Your task to perform on an android device: open app "Mercado Libre" (install if not already installed), go to login, and select forgot password Image 0: 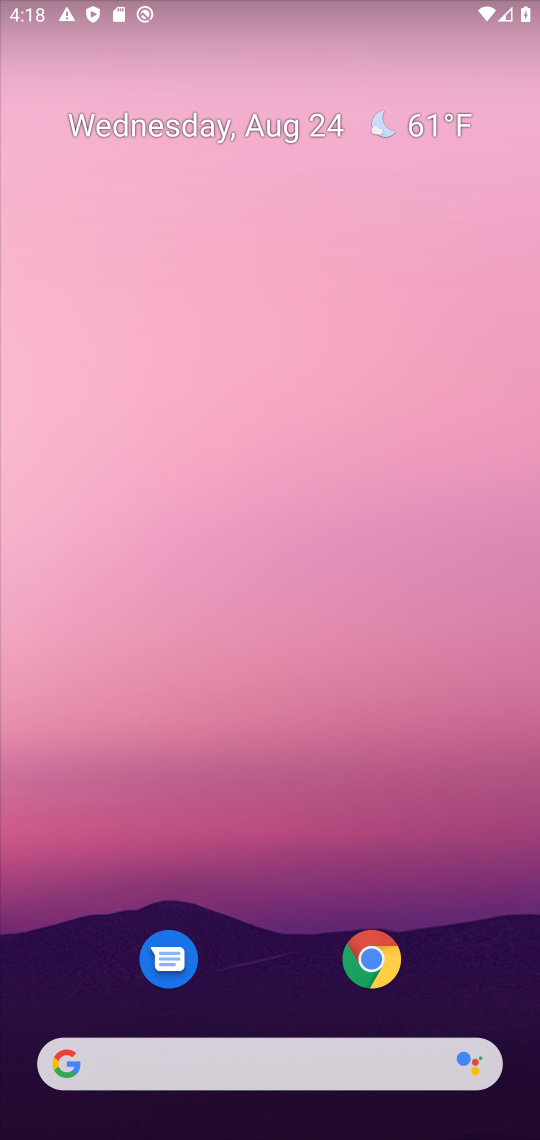
Step 0: click (443, 70)
Your task to perform on an android device: open app "Mercado Libre" (install if not already installed), go to login, and select forgot password Image 1: 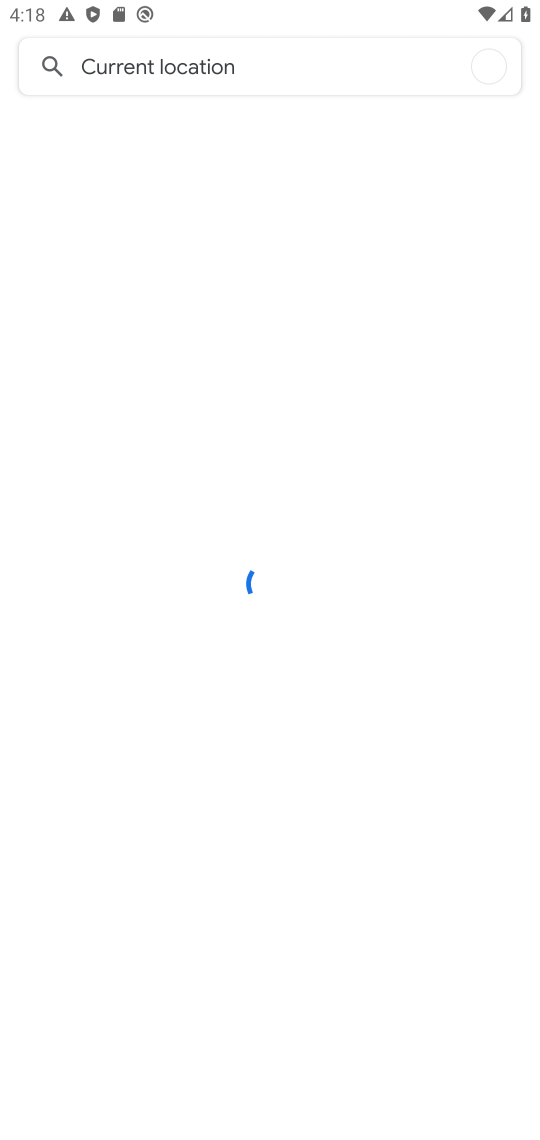
Step 1: press home button
Your task to perform on an android device: open app "Mercado Libre" (install if not already installed), go to login, and select forgot password Image 2: 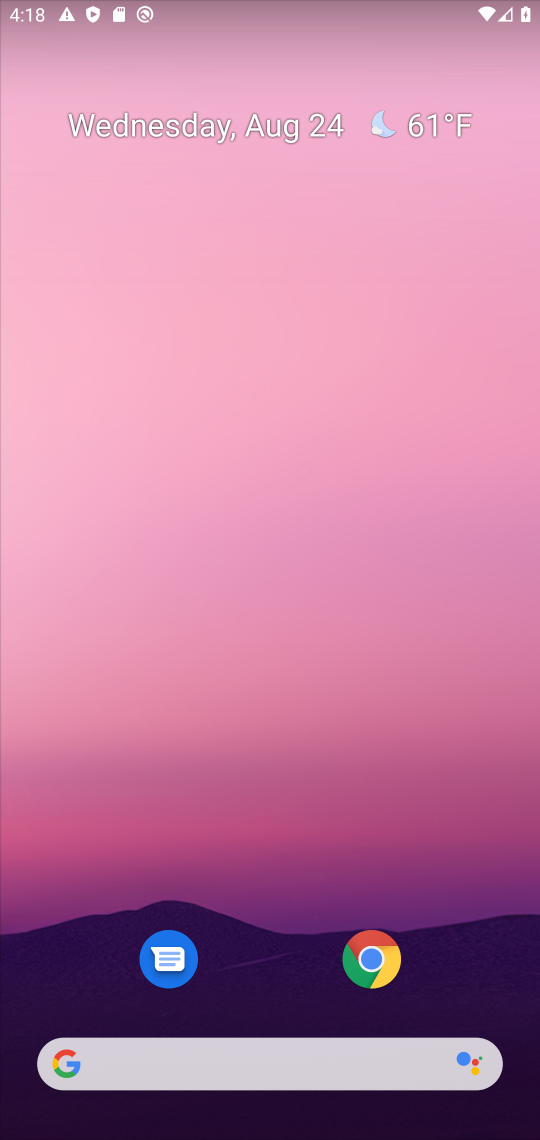
Step 2: drag from (303, 980) to (416, 8)
Your task to perform on an android device: open app "Mercado Libre" (install if not already installed), go to login, and select forgot password Image 3: 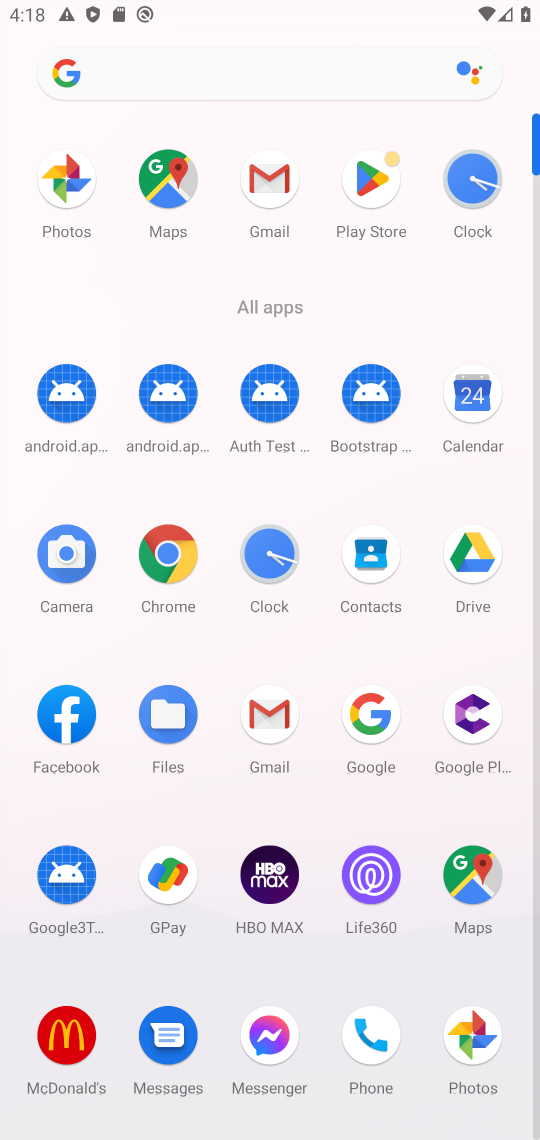
Step 3: click (379, 200)
Your task to perform on an android device: open app "Mercado Libre" (install if not already installed), go to login, and select forgot password Image 4: 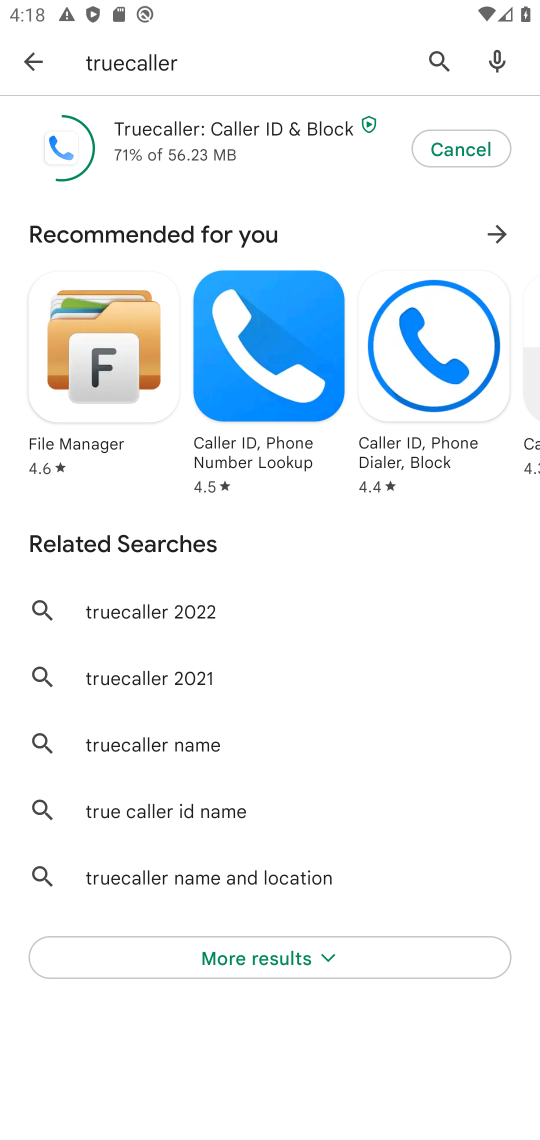
Step 4: click (434, 72)
Your task to perform on an android device: open app "Mercado Libre" (install if not already installed), go to login, and select forgot password Image 5: 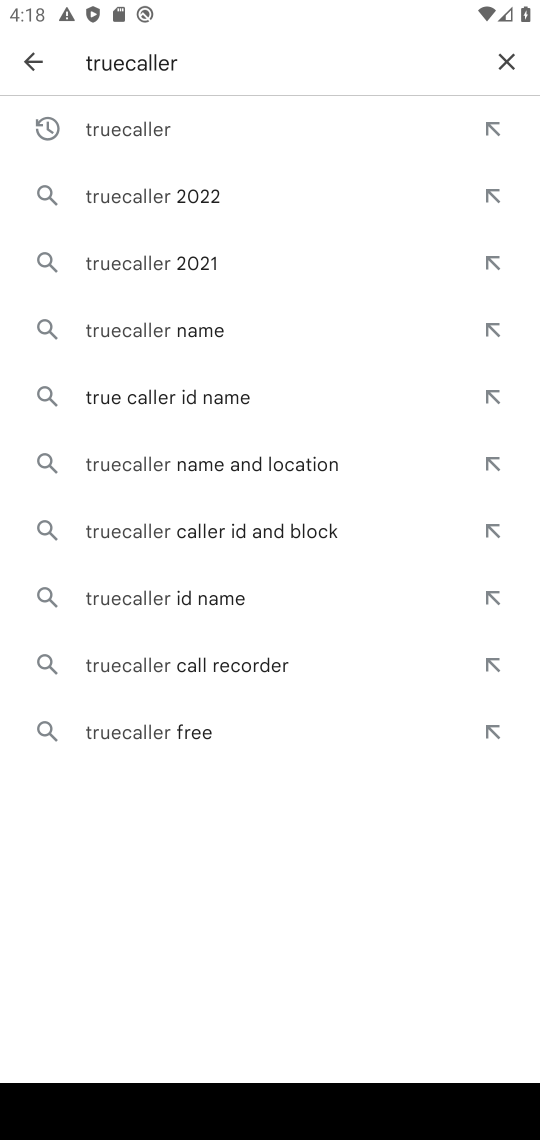
Step 5: click (490, 64)
Your task to perform on an android device: open app "Mercado Libre" (install if not already installed), go to login, and select forgot password Image 6: 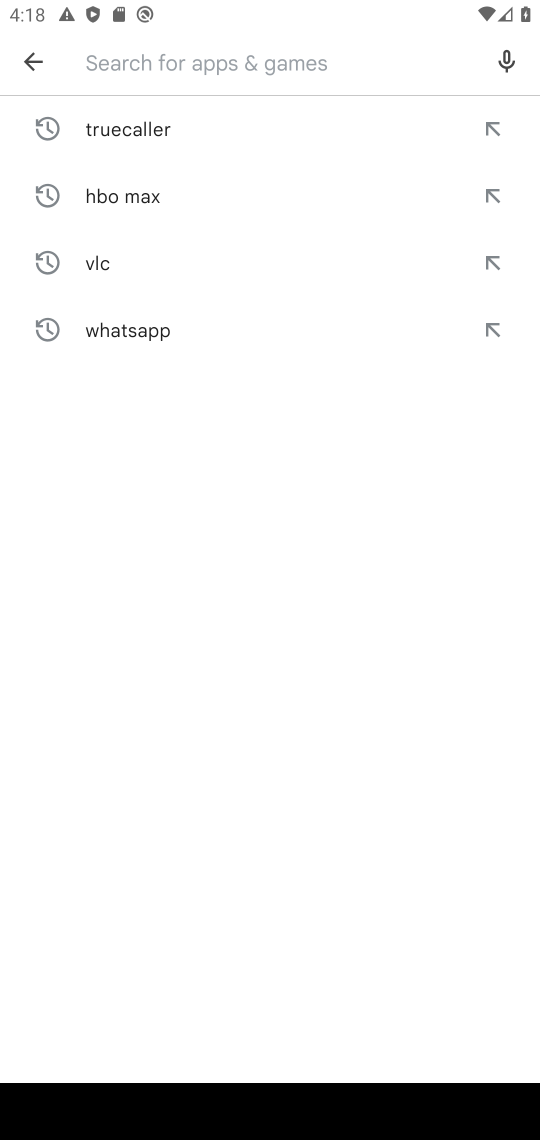
Step 6: type "mercadio"
Your task to perform on an android device: open app "Mercado Libre" (install if not already installed), go to login, and select forgot password Image 7: 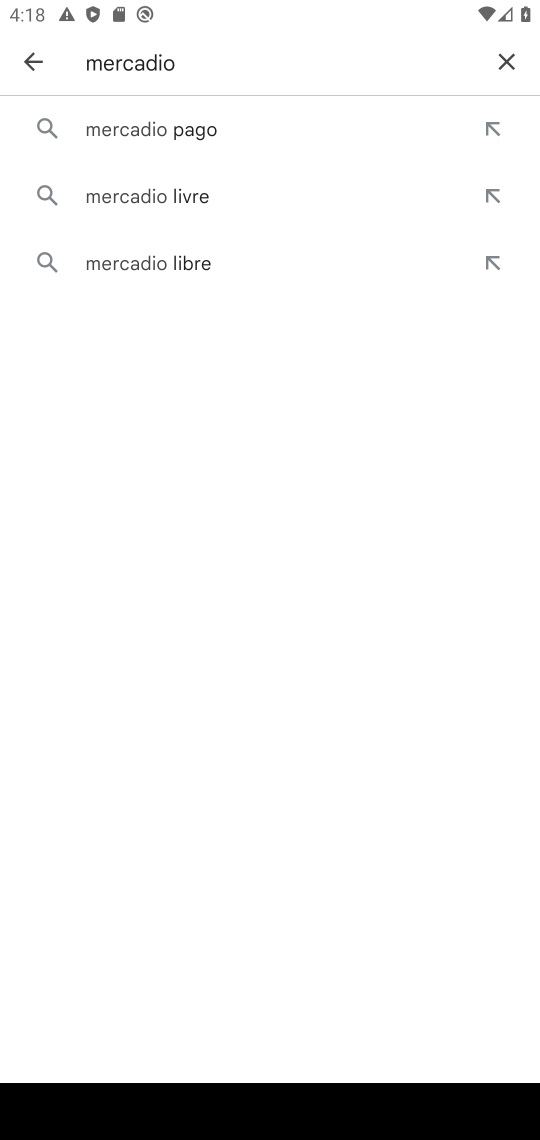
Step 7: click (195, 124)
Your task to perform on an android device: open app "Mercado Libre" (install if not already installed), go to login, and select forgot password Image 8: 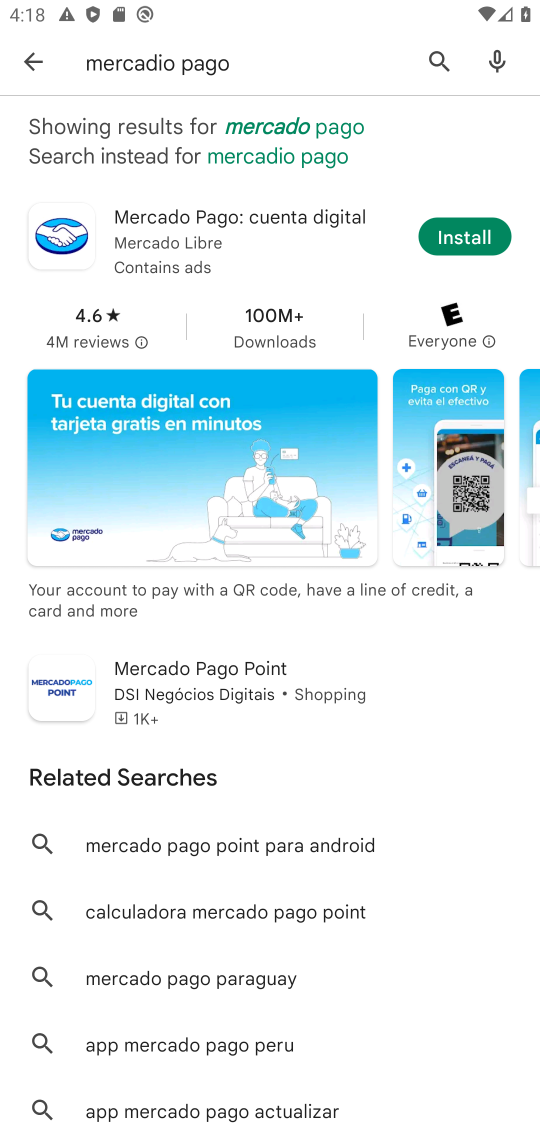
Step 8: click (466, 235)
Your task to perform on an android device: open app "Mercado Libre" (install if not already installed), go to login, and select forgot password Image 9: 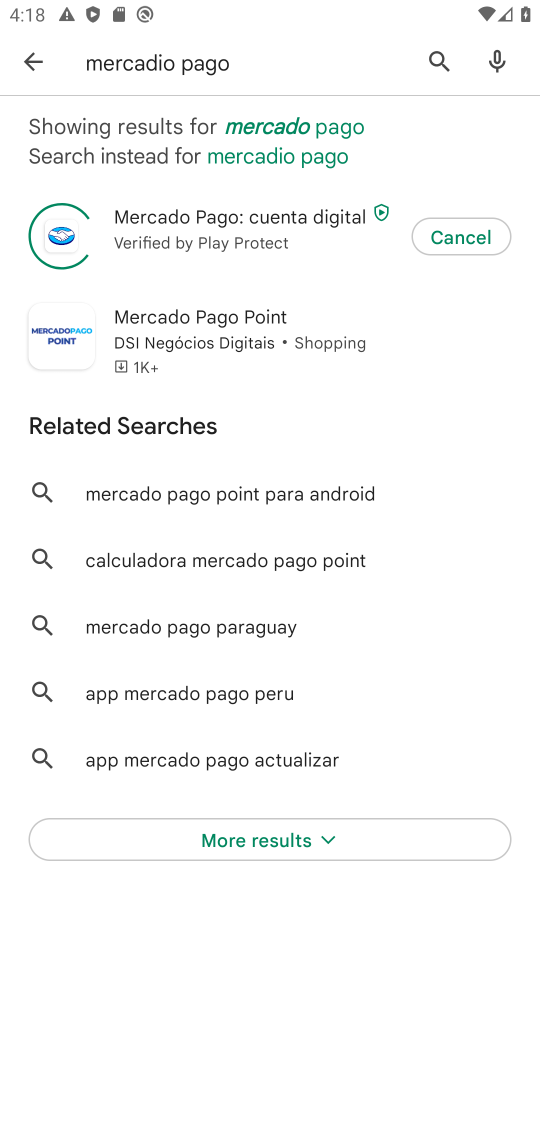
Step 9: task complete